Your task to perform on an android device: open the mobile data screen to see how much data has been used Image 0: 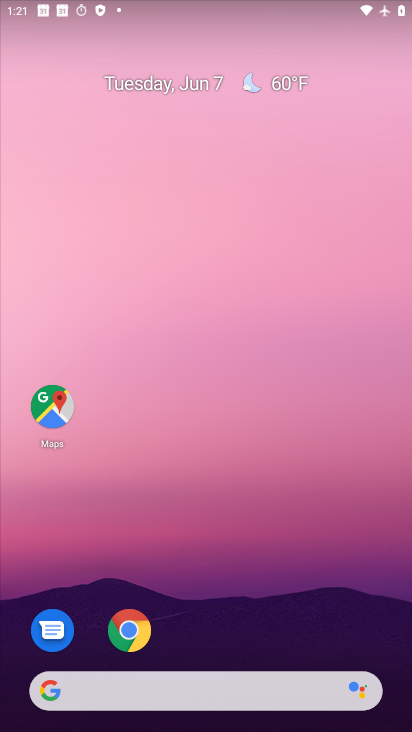
Step 0: drag from (334, 608) to (263, 1)
Your task to perform on an android device: open the mobile data screen to see how much data has been used Image 1: 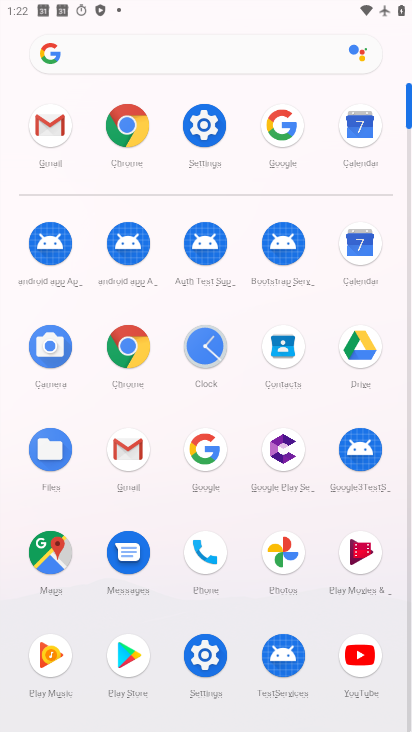
Step 1: click (197, 136)
Your task to perform on an android device: open the mobile data screen to see how much data has been used Image 2: 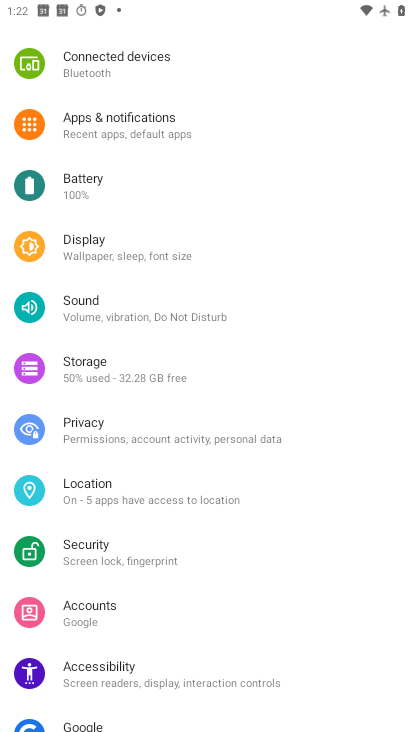
Step 2: drag from (117, 104) to (169, 674)
Your task to perform on an android device: open the mobile data screen to see how much data has been used Image 3: 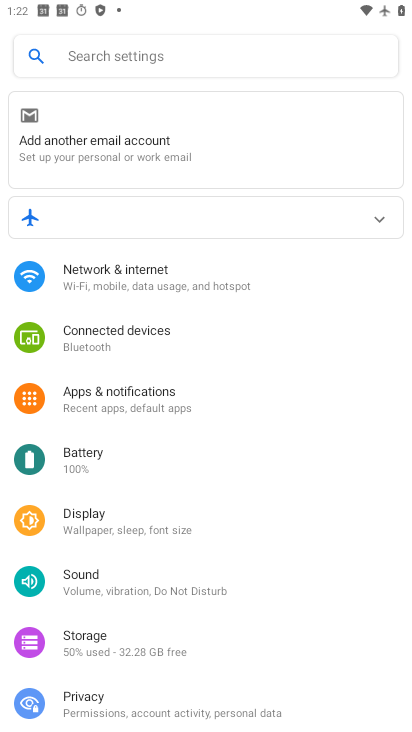
Step 3: click (137, 281)
Your task to perform on an android device: open the mobile data screen to see how much data has been used Image 4: 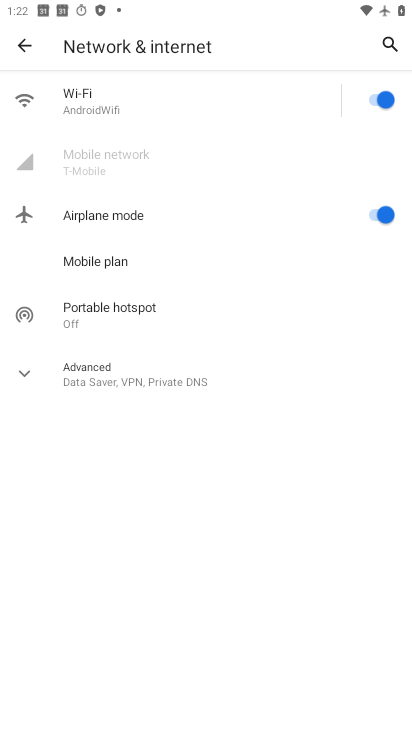
Step 4: task complete